Your task to perform on an android device: Check the settings for the Twitter app Image 0: 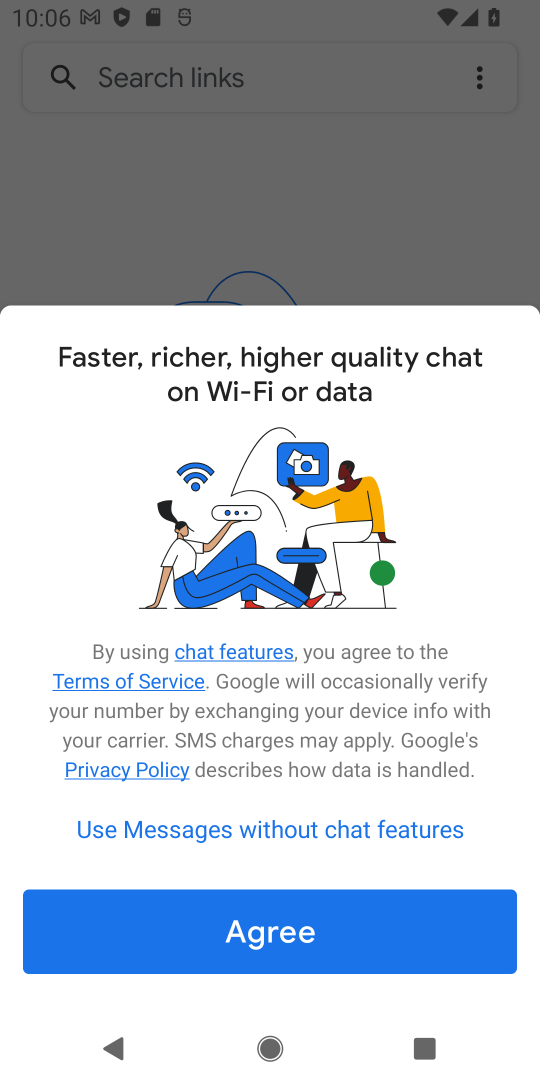
Step 0: press home button
Your task to perform on an android device: Check the settings for the Twitter app Image 1: 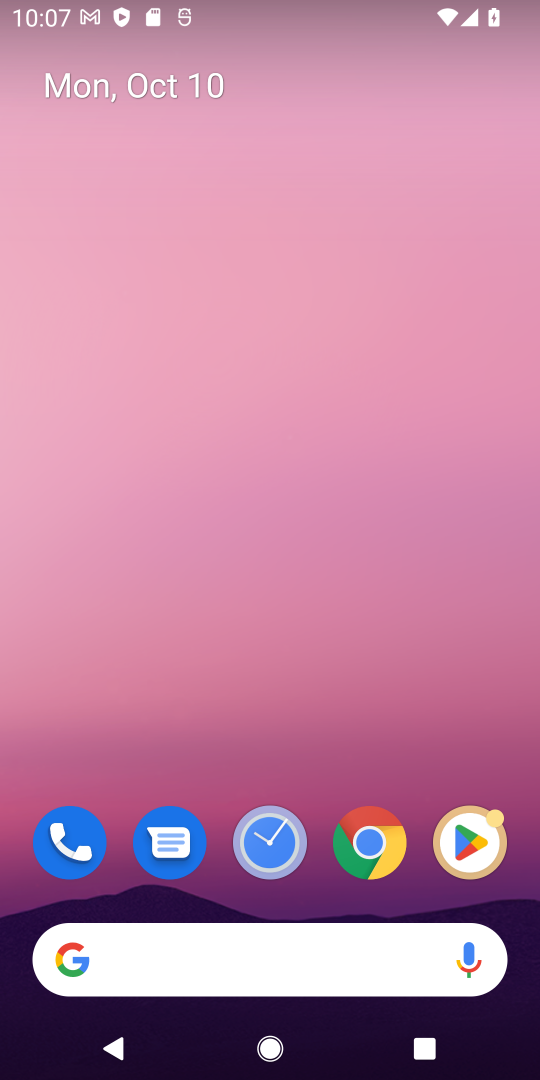
Step 1: task complete